Your task to perform on an android device: see creations saved in the google photos Image 0: 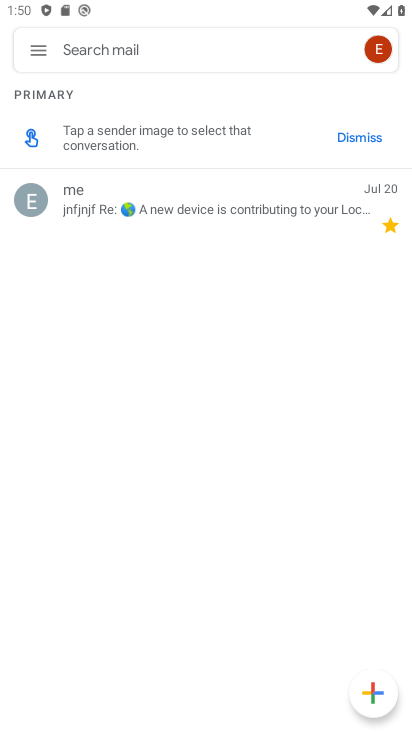
Step 0: press home button
Your task to perform on an android device: see creations saved in the google photos Image 1: 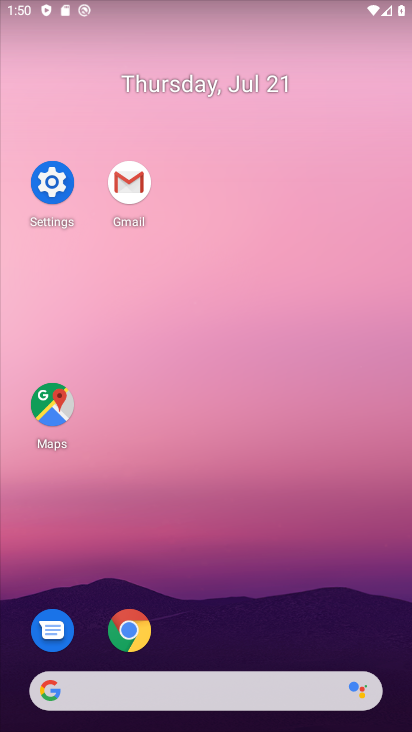
Step 1: drag from (271, 535) to (263, 132)
Your task to perform on an android device: see creations saved in the google photos Image 2: 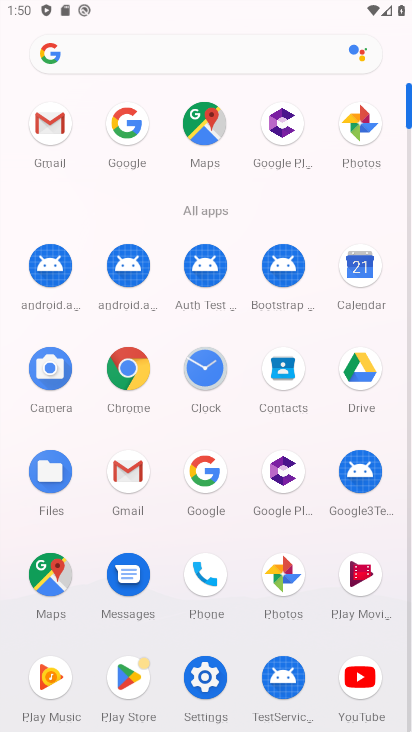
Step 2: drag from (353, 117) to (181, 202)
Your task to perform on an android device: see creations saved in the google photos Image 3: 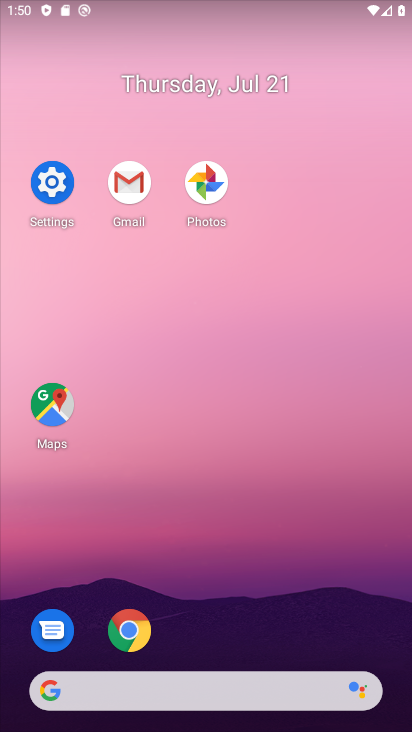
Step 3: click (205, 177)
Your task to perform on an android device: see creations saved in the google photos Image 4: 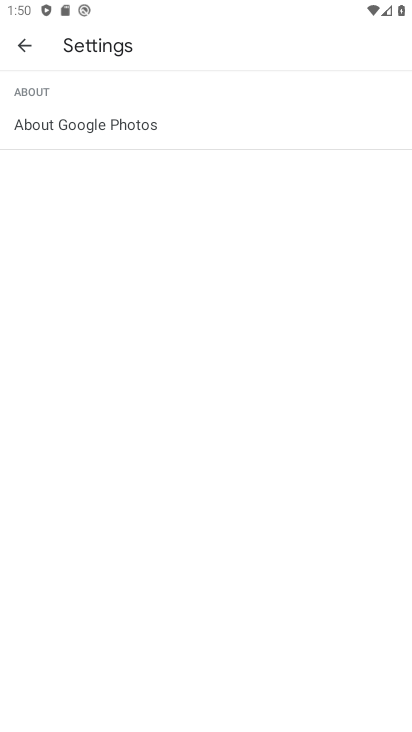
Step 4: click (12, 46)
Your task to perform on an android device: see creations saved in the google photos Image 5: 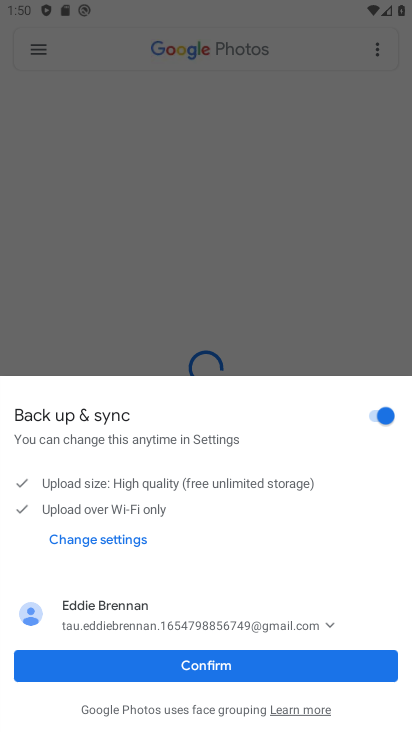
Step 5: click (235, 653)
Your task to perform on an android device: see creations saved in the google photos Image 6: 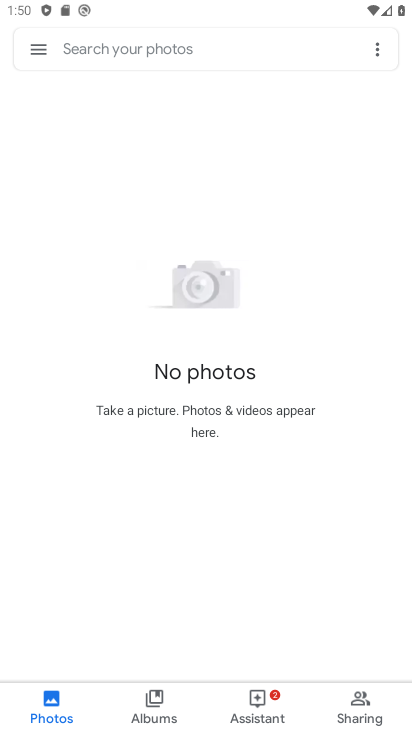
Step 6: click (187, 42)
Your task to perform on an android device: see creations saved in the google photos Image 7: 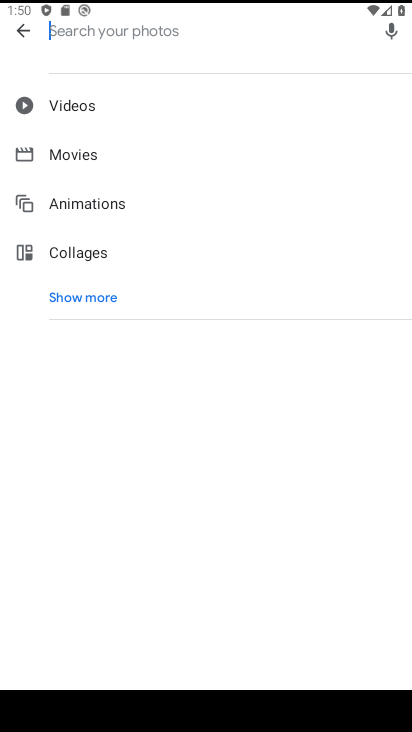
Step 7: click (123, 291)
Your task to perform on an android device: see creations saved in the google photos Image 8: 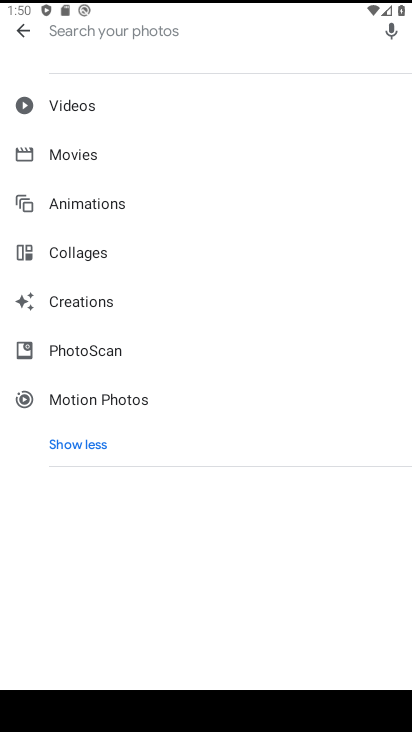
Step 8: click (116, 296)
Your task to perform on an android device: see creations saved in the google photos Image 9: 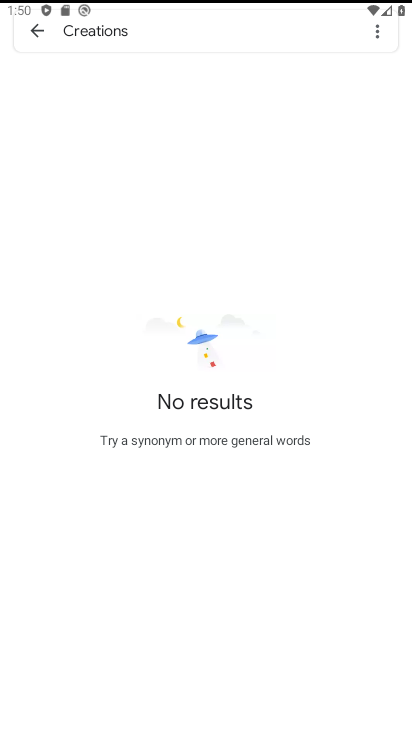
Step 9: task complete